Your task to perform on an android device: Search for macbook pro on ebay, select the first entry, and add it to the cart. Image 0: 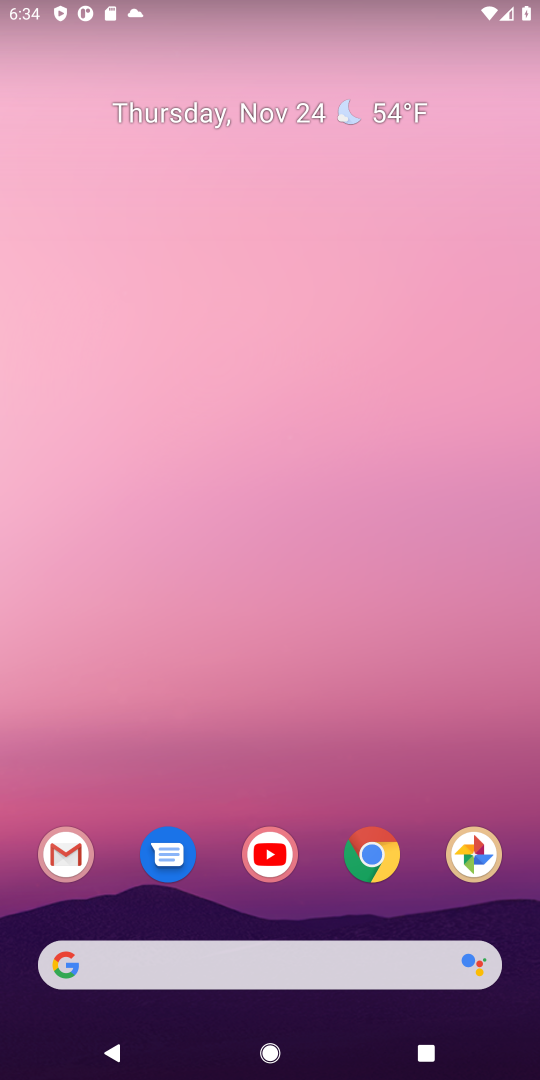
Step 0: click (362, 854)
Your task to perform on an android device: Search for macbook pro on ebay, select the first entry, and add it to the cart. Image 1: 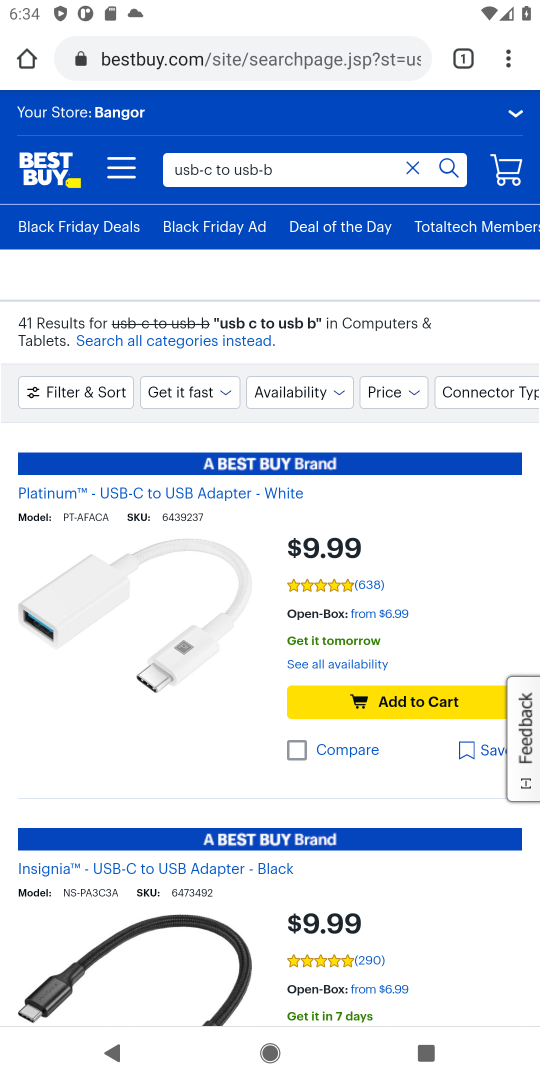
Step 1: click (206, 65)
Your task to perform on an android device: Search for macbook pro on ebay, select the first entry, and add it to the cart. Image 2: 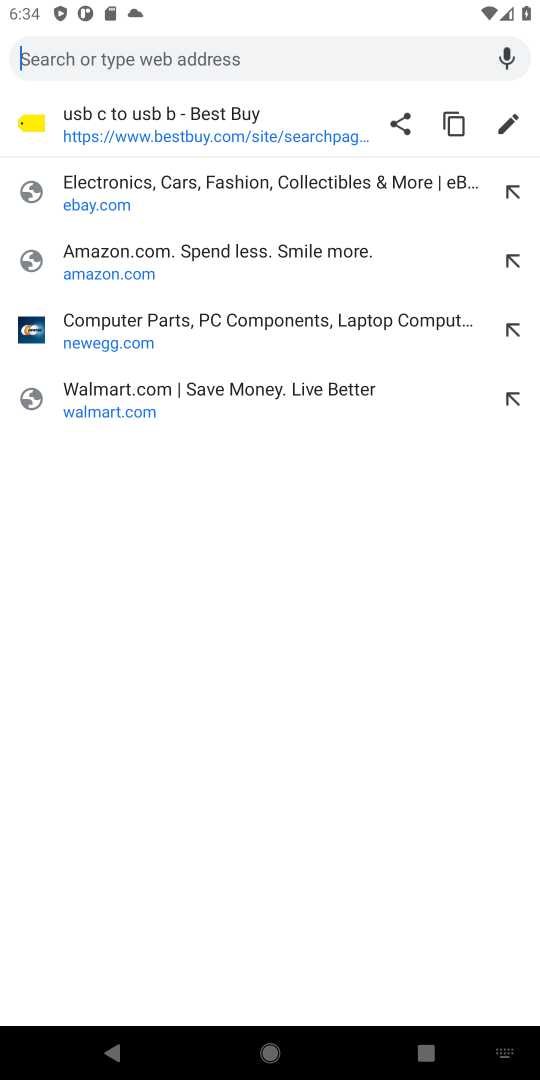
Step 2: click (91, 205)
Your task to perform on an android device: Search for macbook pro on ebay, select the first entry, and add it to the cart. Image 3: 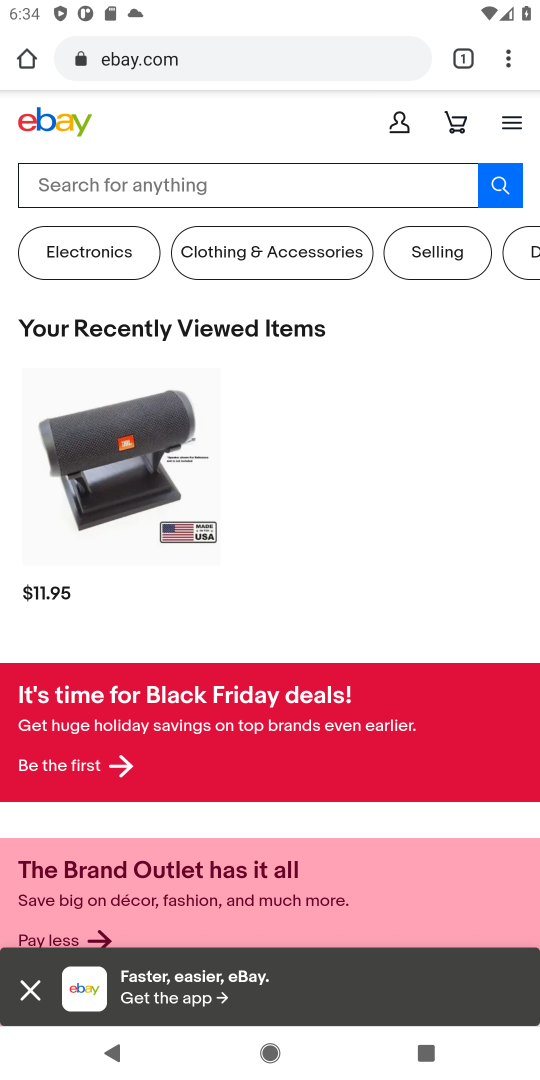
Step 3: click (177, 177)
Your task to perform on an android device: Search for macbook pro on ebay, select the first entry, and add it to the cart. Image 4: 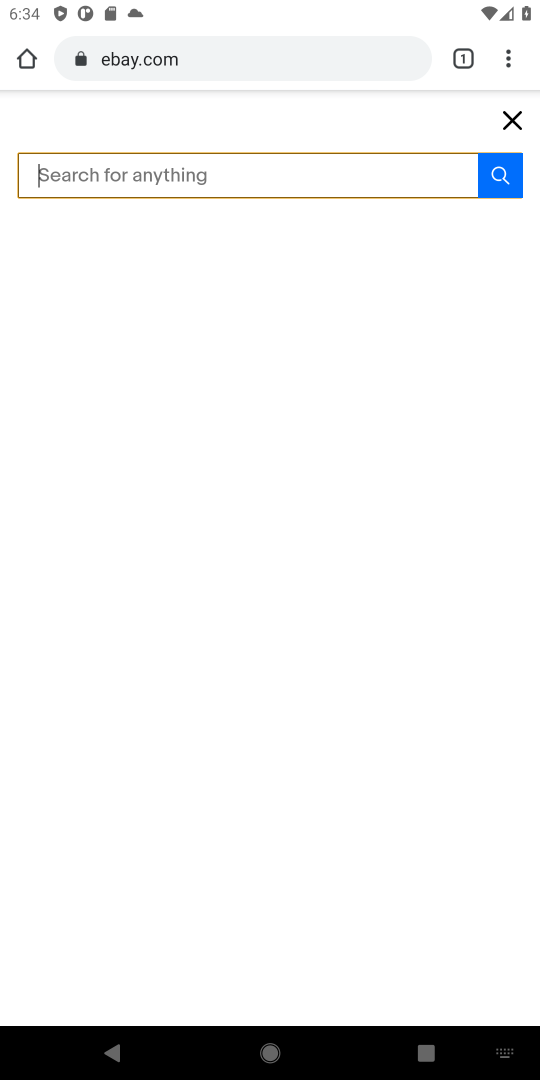
Step 4: type "macbook pro"
Your task to perform on an android device: Search for macbook pro on ebay, select the first entry, and add it to the cart. Image 5: 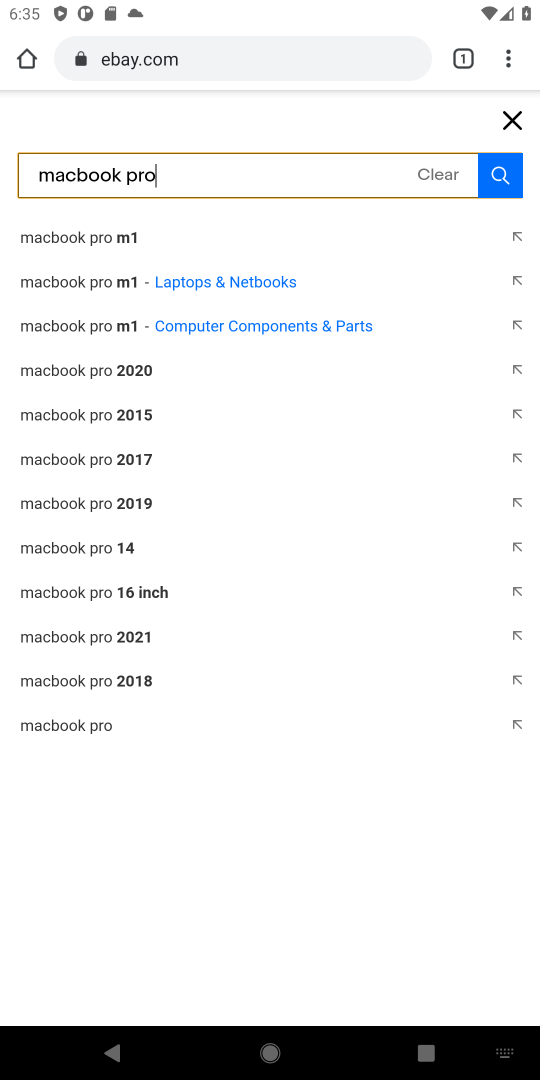
Step 5: click (86, 732)
Your task to perform on an android device: Search for macbook pro on ebay, select the first entry, and add it to the cart. Image 6: 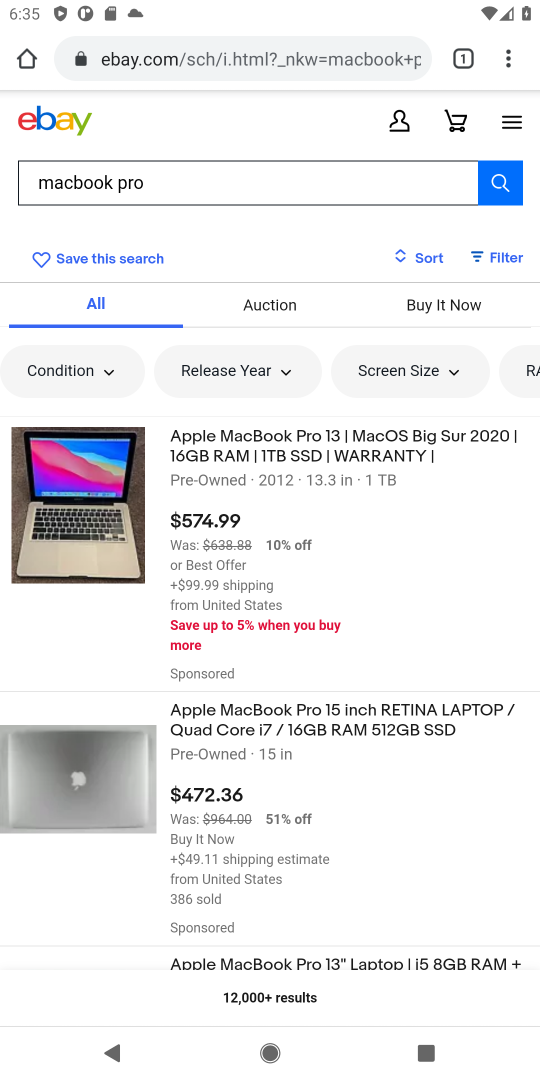
Step 6: click (46, 531)
Your task to perform on an android device: Search for macbook pro on ebay, select the first entry, and add it to the cart. Image 7: 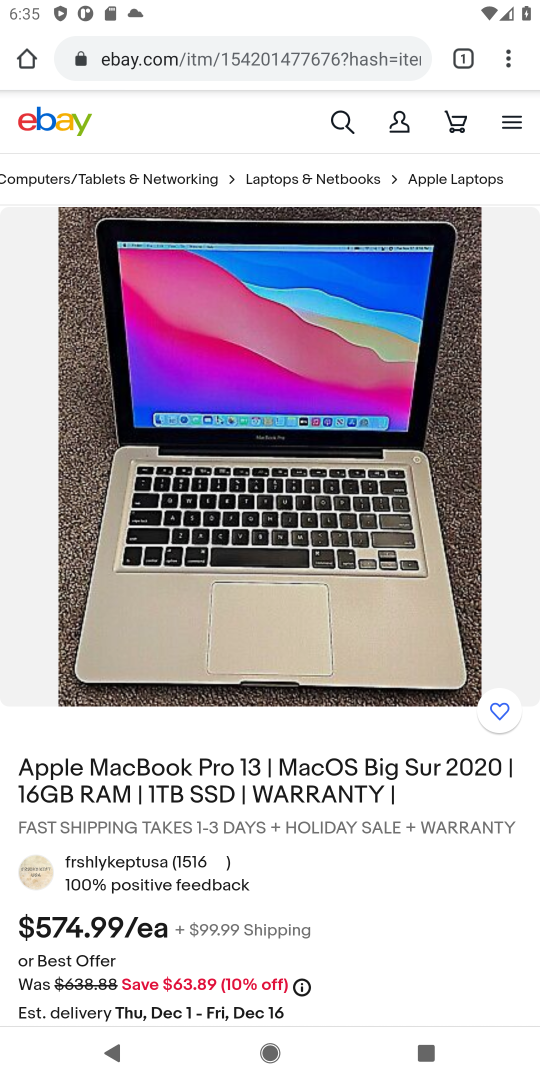
Step 7: drag from (237, 712) to (251, 366)
Your task to perform on an android device: Search for macbook pro on ebay, select the first entry, and add it to the cart. Image 8: 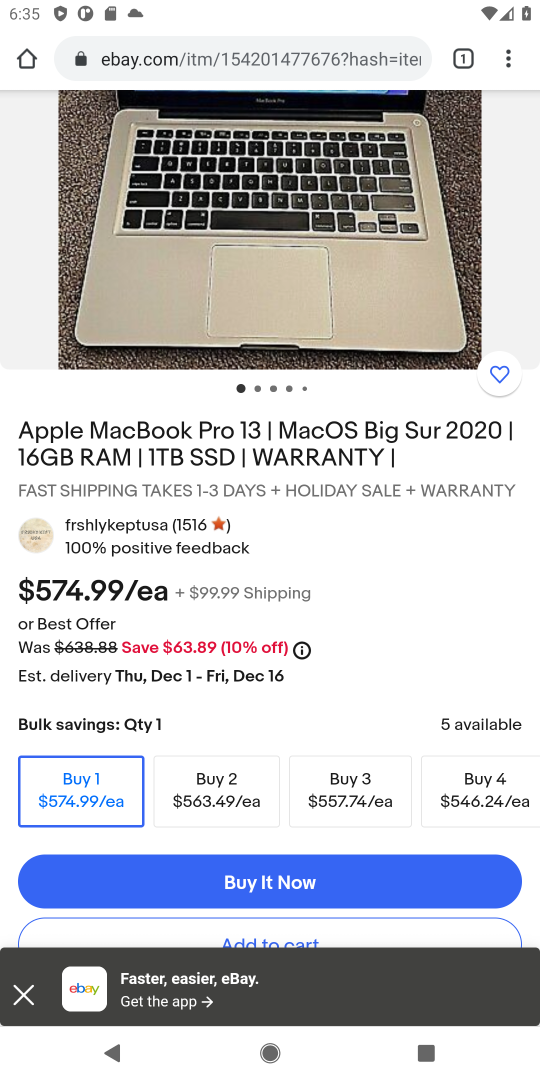
Step 8: drag from (334, 712) to (333, 521)
Your task to perform on an android device: Search for macbook pro on ebay, select the first entry, and add it to the cart. Image 9: 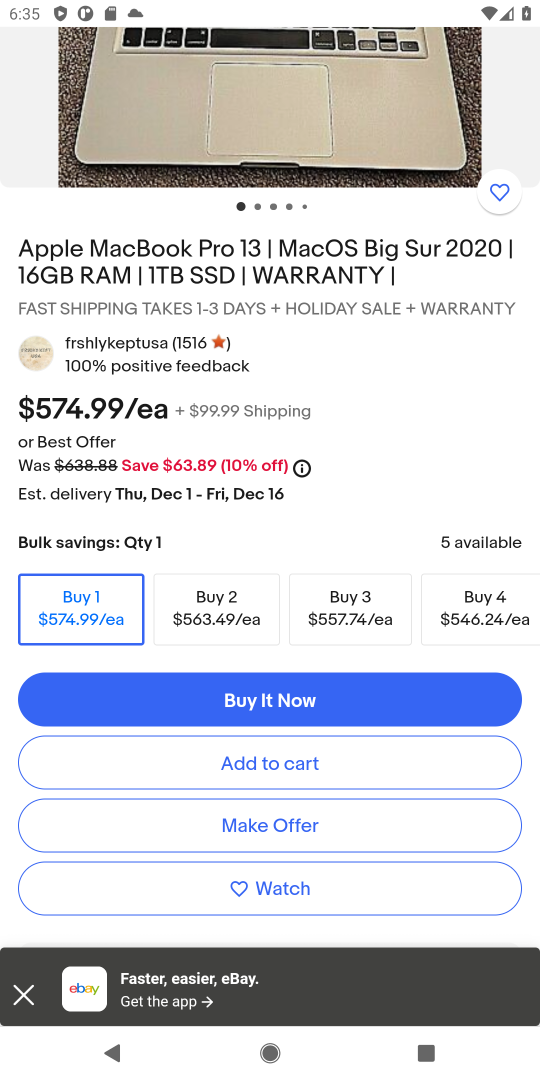
Step 9: click (246, 758)
Your task to perform on an android device: Search for macbook pro on ebay, select the first entry, and add it to the cart. Image 10: 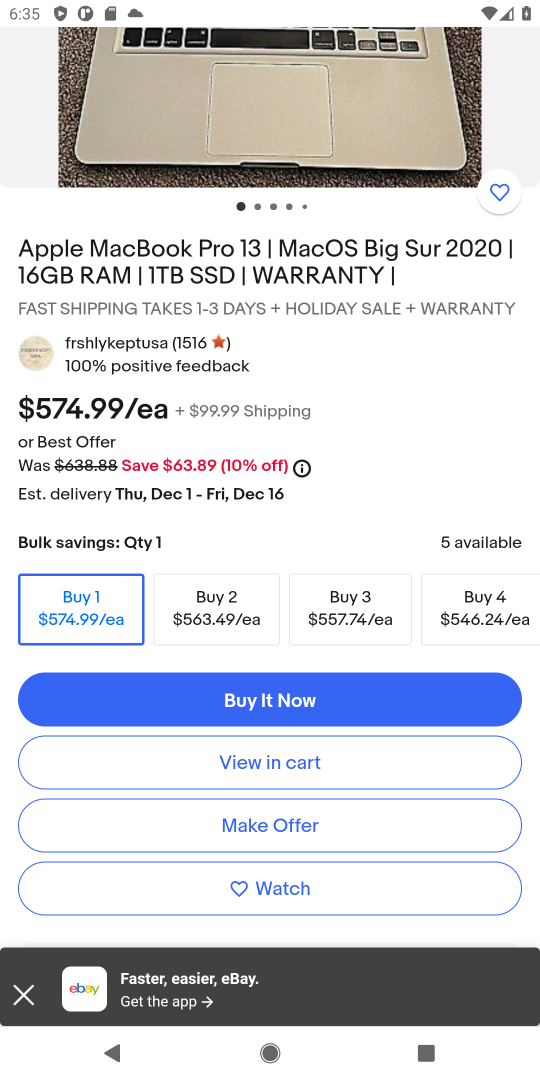
Step 10: task complete